Your task to perform on an android device: Go to Yahoo.com Image 0: 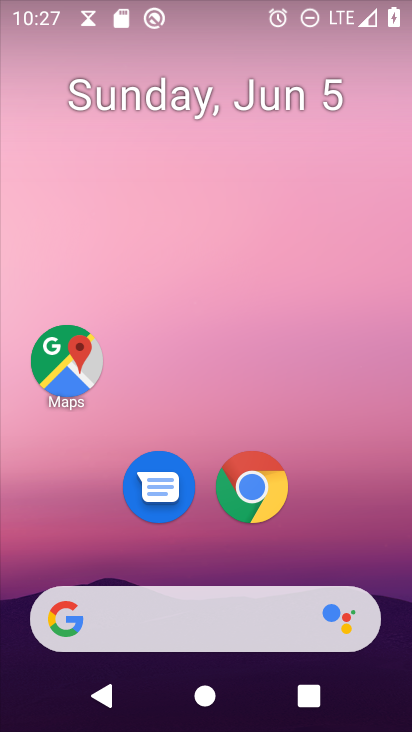
Step 0: click (253, 492)
Your task to perform on an android device: Go to Yahoo.com Image 1: 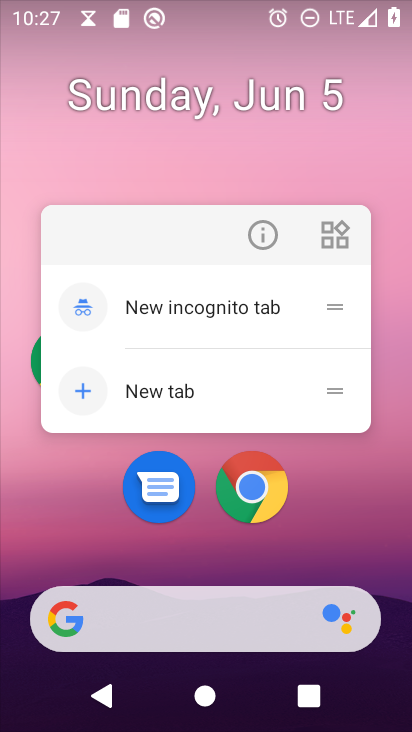
Step 1: click (255, 490)
Your task to perform on an android device: Go to Yahoo.com Image 2: 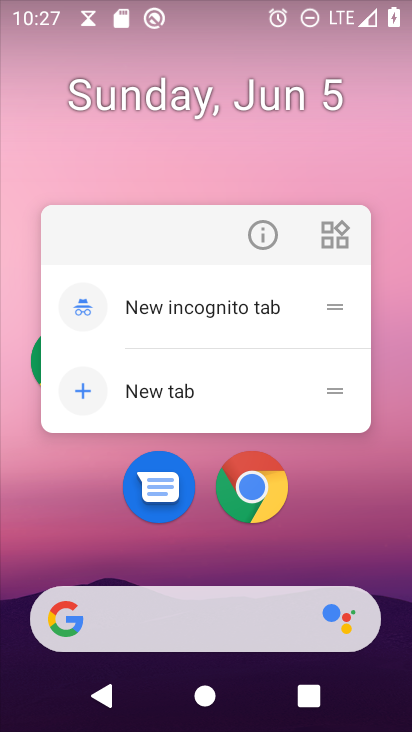
Step 2: click (255, 490)
Your task to perform on an android device: Go to Yahoo.com Image 3: 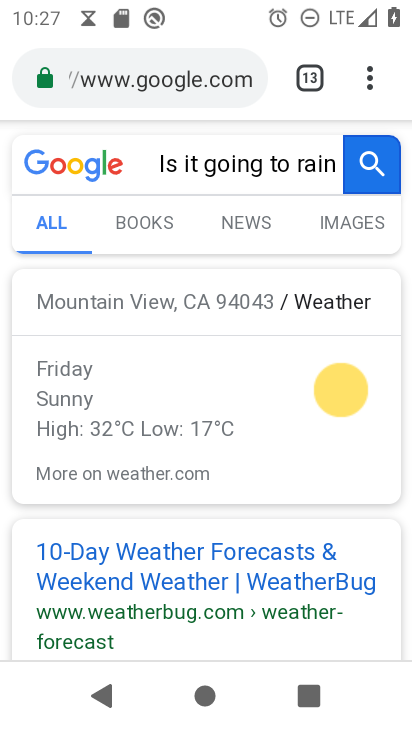
Step 3: click (359, 75)
Your task to perform on an android device: Go to Yahoo.com Image 4: 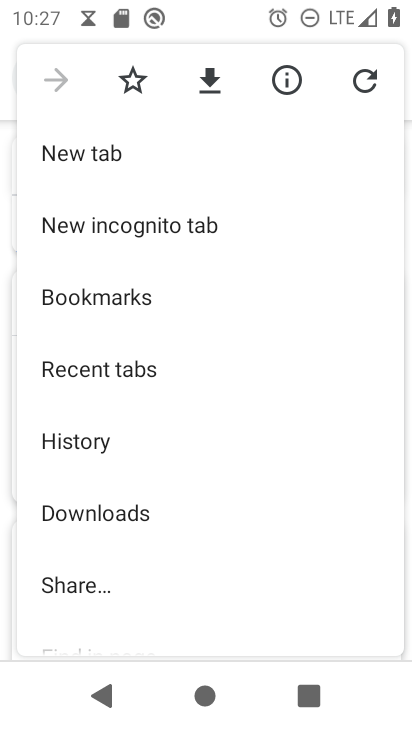
Step 4: click (87, 156)
Your task to perform on an android device: Go to Yahoo.com Image 5: 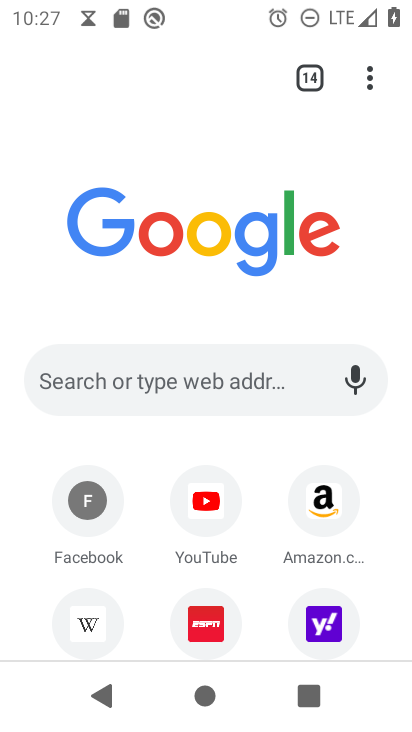
Step 5: click (324, 623)
Your task to perform on an android device: Go to Yahoo.com Image 6: 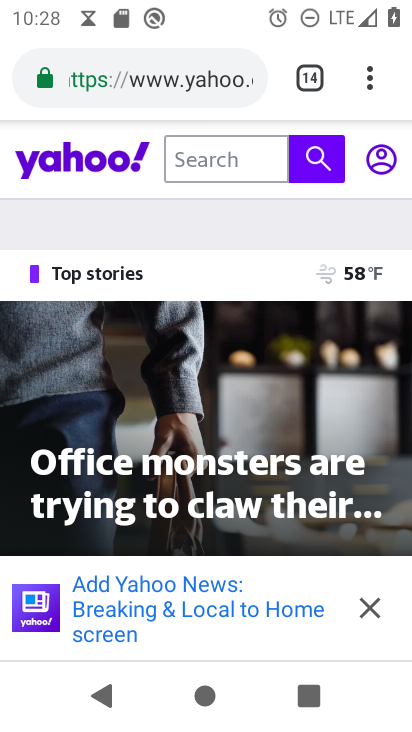
Step 6: task complete